Your task to perform on an android device: turn notification dots on Image 0: 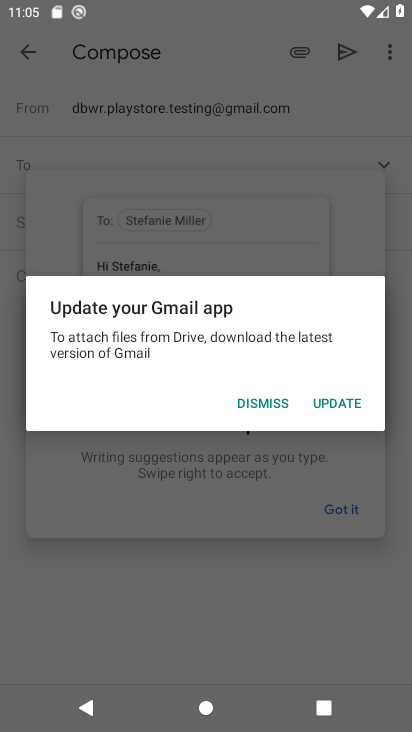
Step 0: press home button
Your task to perform on an android device: turn notification dots on Image 1: 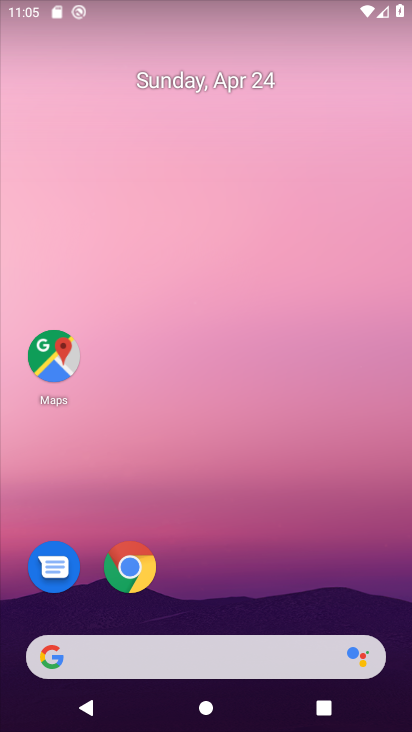
Step 1: drag from (259, 506) to (257, 97)
Your task to perform on an android device: turn notification dots on Image 2: 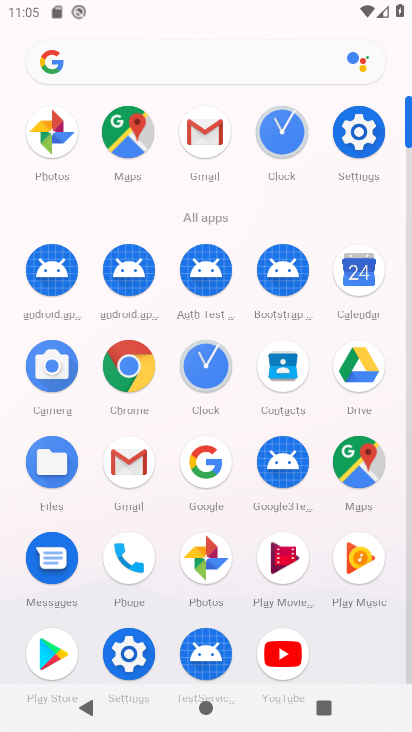
Step 2: click (366, 142)
Your task to perform on an android device: turn notification dots on Image 3: 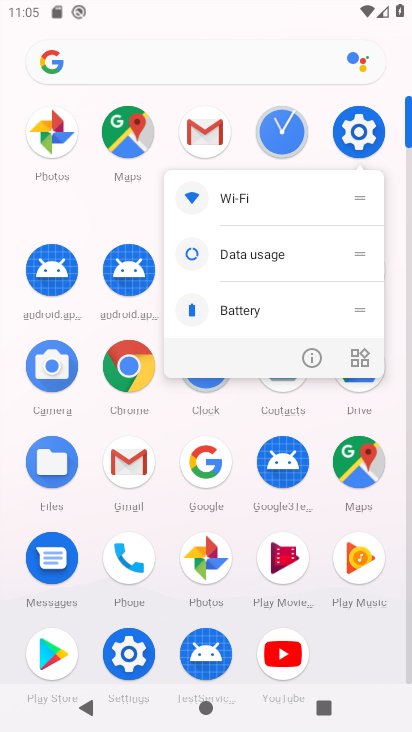
Step 3: click (350, 128)
Your task to perform on an android device: turn notification dots on Image 4: 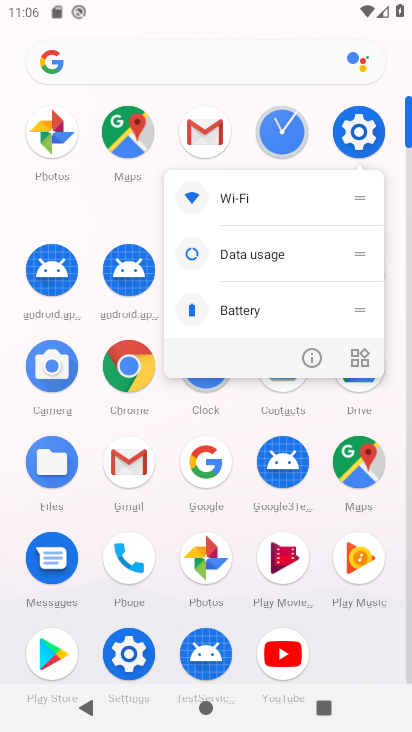
Step 4: click (350, 128)
Your task to perform on an android device: turn notification dots on Image 5: 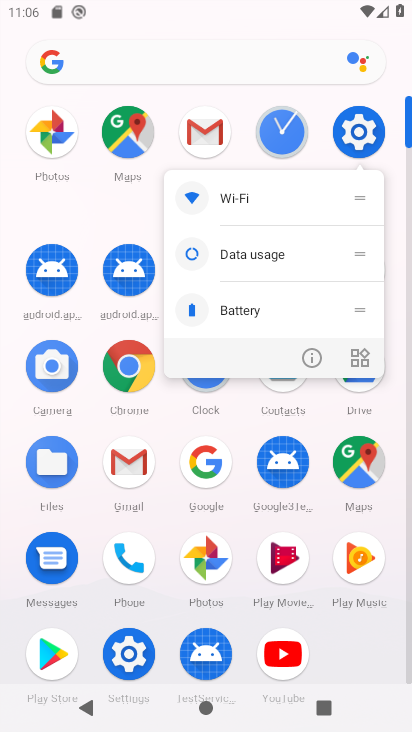
Step 5: click (349, 133)
Your task to perform on an android device: turn notification dots on Image 6: 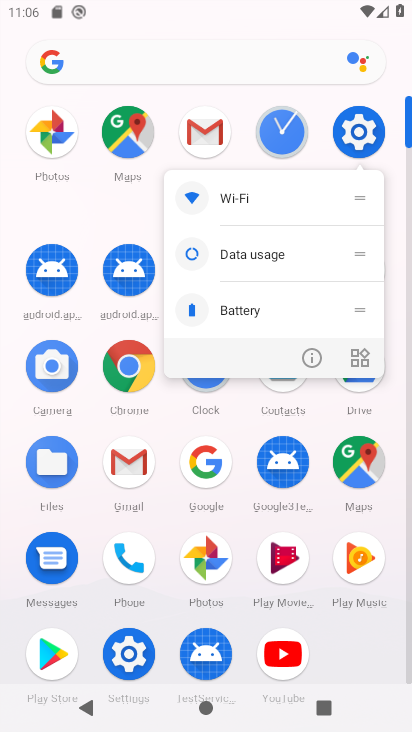
Step 6: click (368, 138)
Your task to perform on an android device: turn notification dots on Image 7: 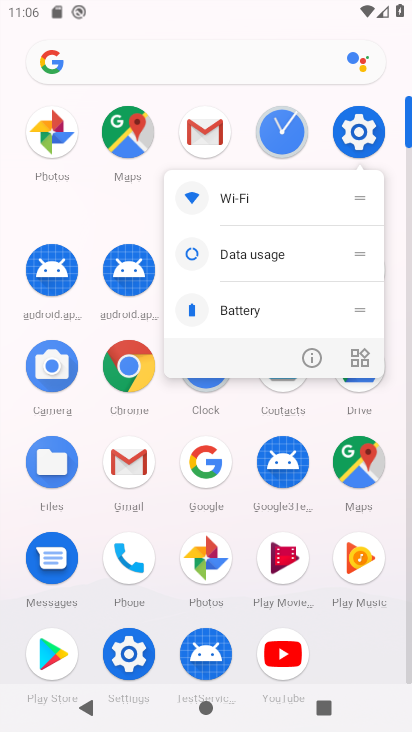
Step 7: click (370, 145)
Your task to perform on an android device: turn notification dots on Image 8: 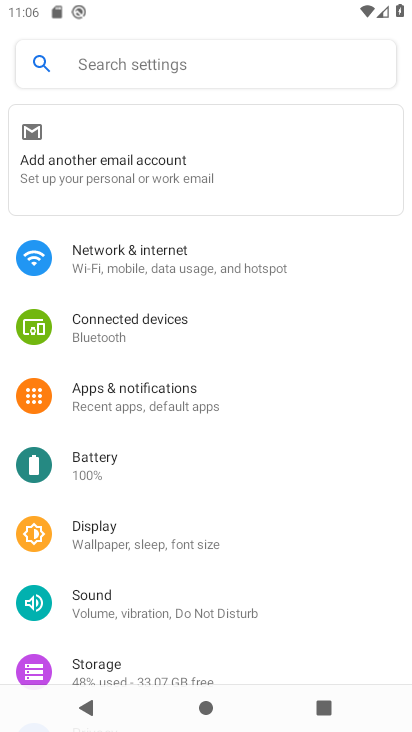
Step 8: click (211, 404)
Your task to perform on an android device: turn notification dots on Image 9: 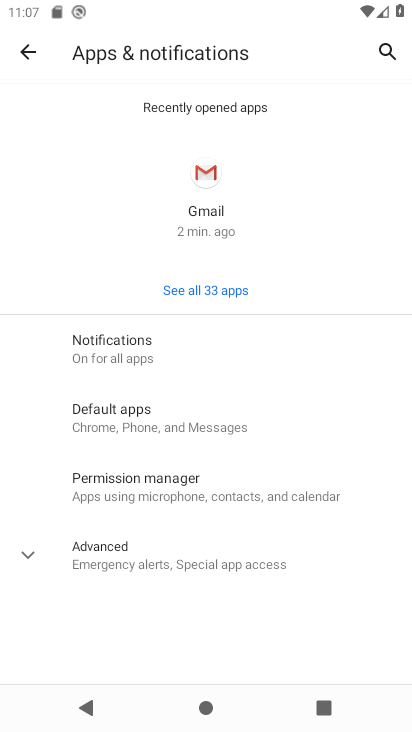
Step 9: click (189, 361)
Your task to perform on an android device: turn notification dots on Image 10: 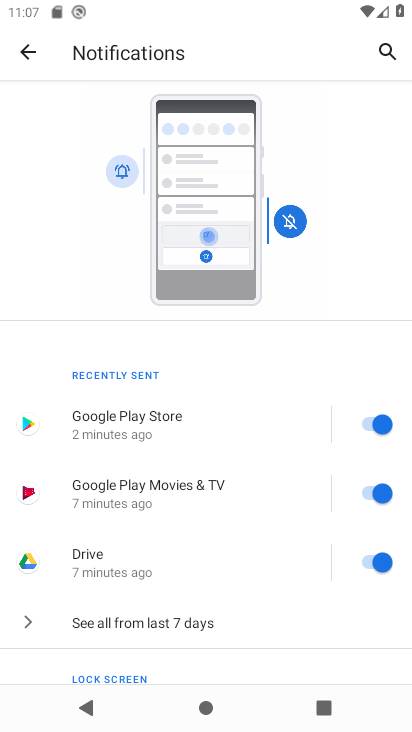
Step 10: drag from (221, 573) to (246, 90)
Your task to perform on an android device: turn notification dots on Image 11: 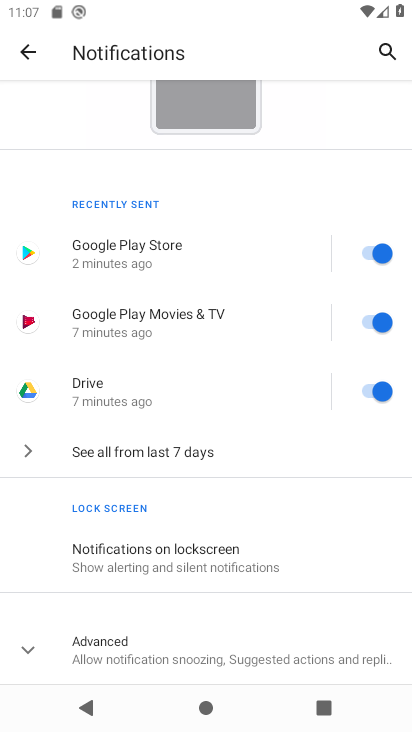
Step 11: drag from (251, 528) to (258, 238)
Your task to perform on an android device: turn notification dots on Image 12: 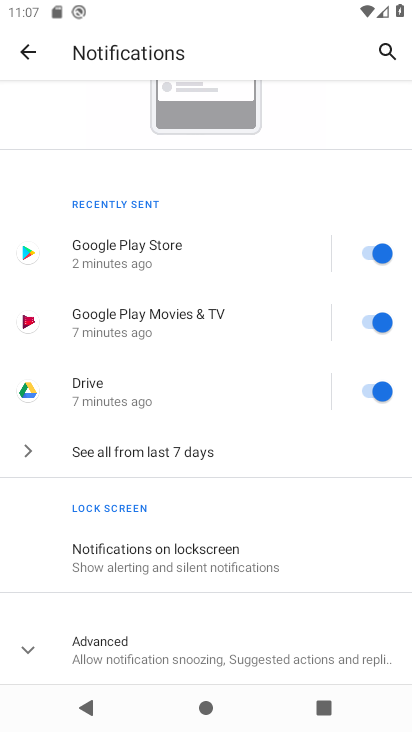
Step 12: click (218, 643)
Your task to perform on an android device: turn notification dots on Image 13: 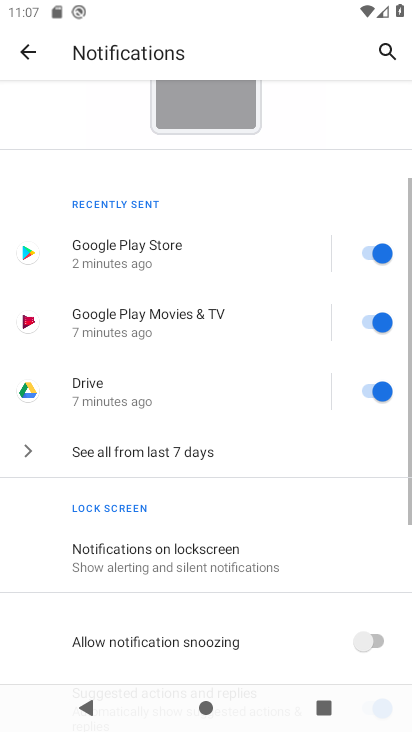
Step 13: task complete